Your task to perform on an android device: Open CNN.com Image 0: 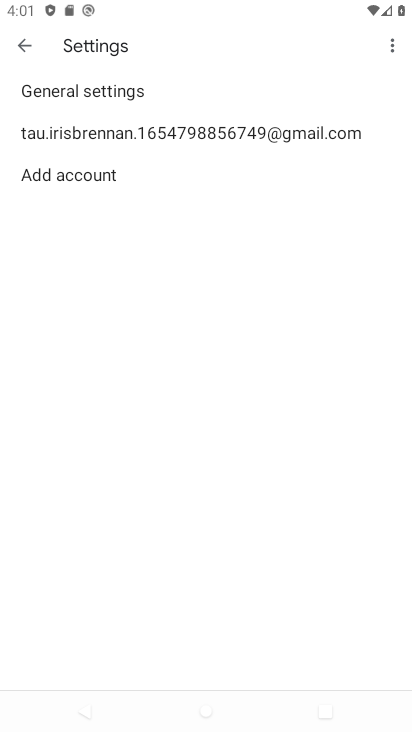
Step 0: press home button
Your task to perform on an android device: Open CNN.com Image 1: 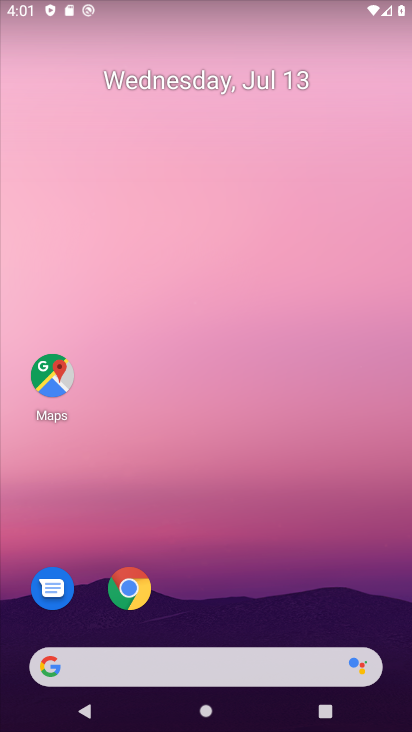
Step 1: click (170, 652)
Your task to perform on an android device: Open CNN.com Image 2: 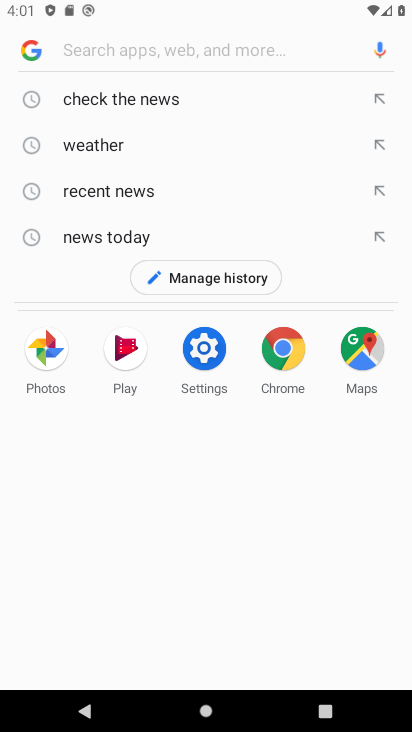
Step 2: type "CNN.com"
Your task to perform on an android device: Open CNN.com Image 3: 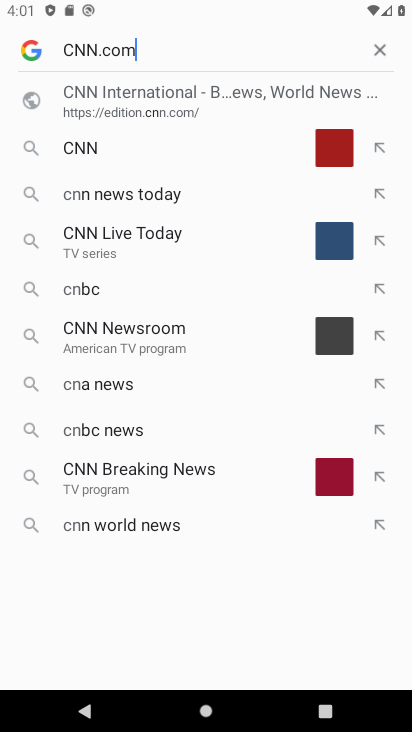
Step 3: type ""
Your task to perform on an android device: Open CNN.com Image 4: 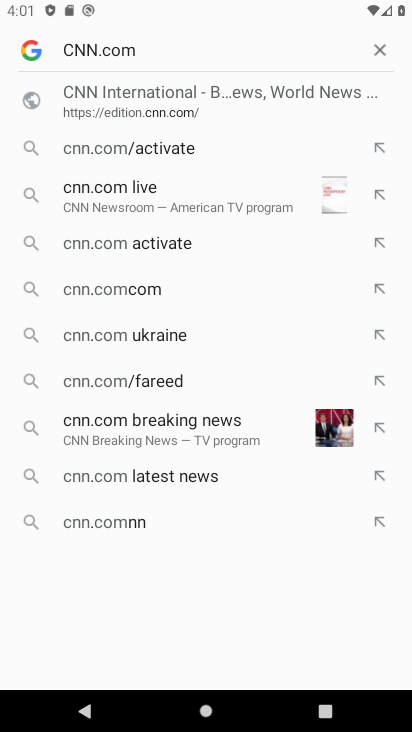
Step 4: type ""
Your task to perform on an android device: Open CNN.com Image 5: 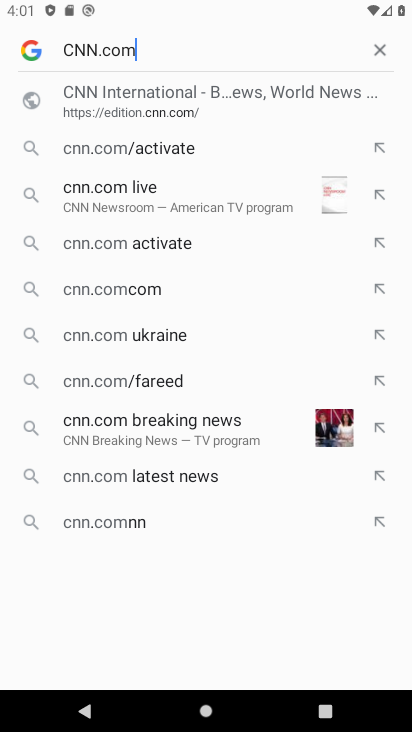
Step 5: type ""
Your task to perform on an android device: Open CNN.com Image 6: 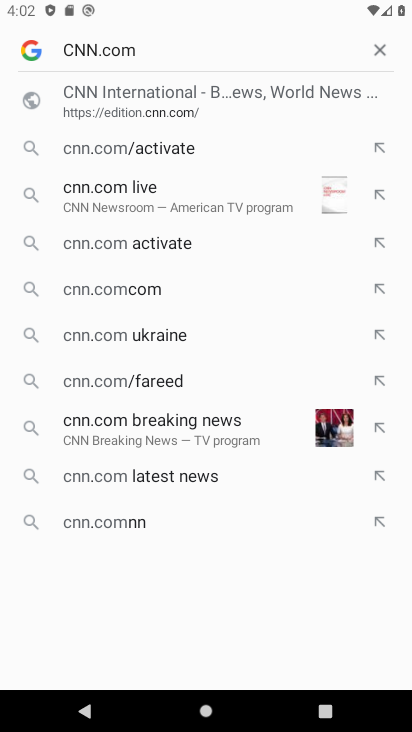
Step 6: task complete